Your task to perform on an android device: Go to location settings Image 0: 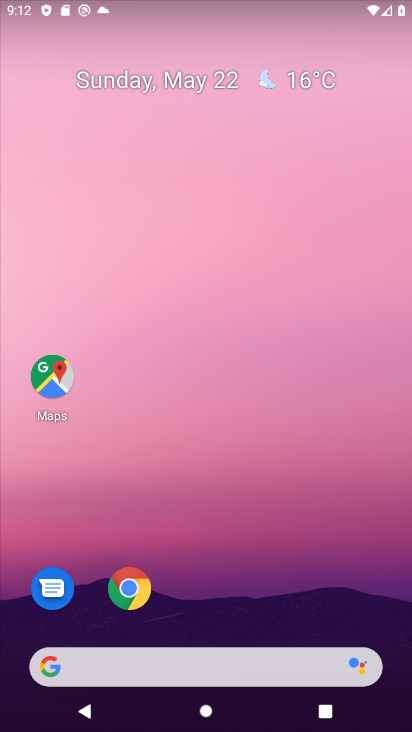
Step 0: drag from (228, 617) to (224, 191)
Your task to perform on an android device: Go to location settings Image 1: 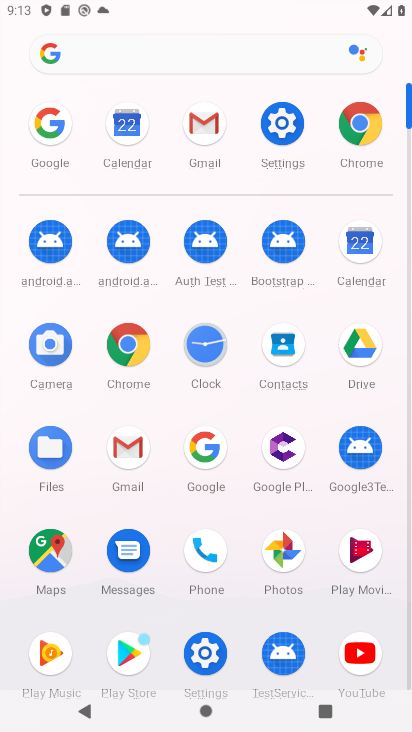
Step 1: click (266, 133)
Your task to perform on an android device: Go to location settings Image 2: 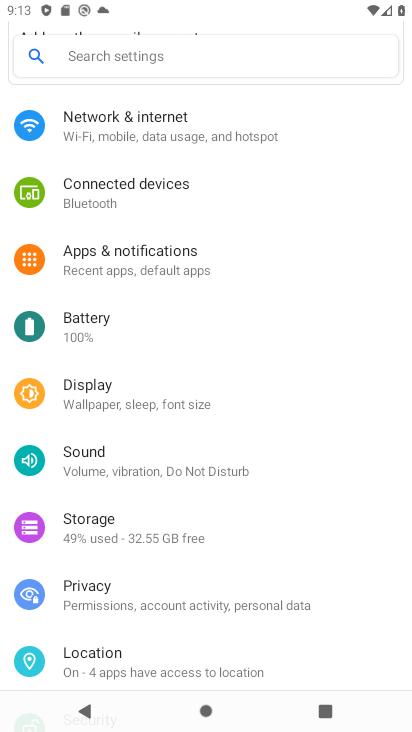
Step 2: click (188, 649)
Your task to perform on an android device: Go to location settings Image 3: 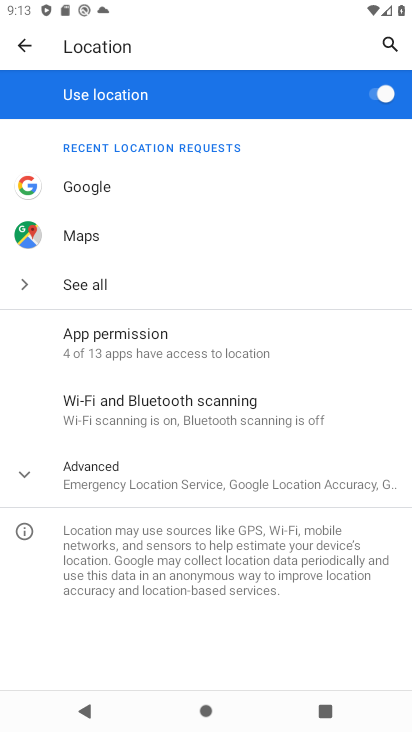
Step 3: task complete